Your task to perform on an android device: Go to Maps Image 0: 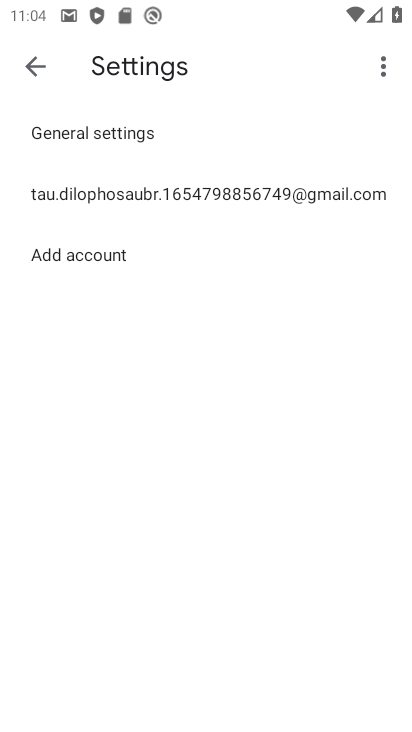
Step 0: press home button
Your task to perform on an android device: Go to Maps Image 1: 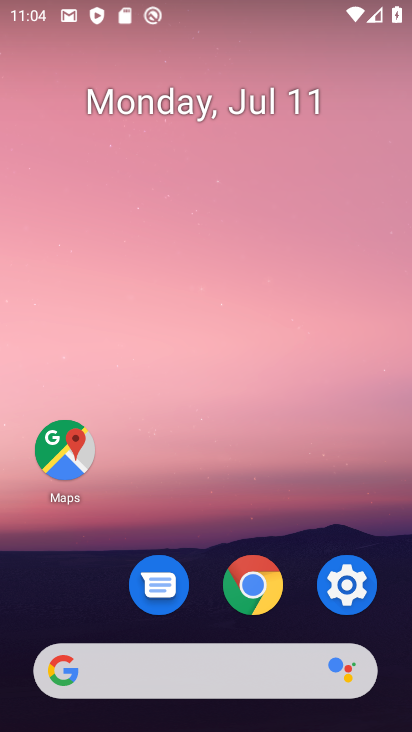
Step 1: click (80, 450)
Your task to perform on an android device: Go to Maps Image 2: 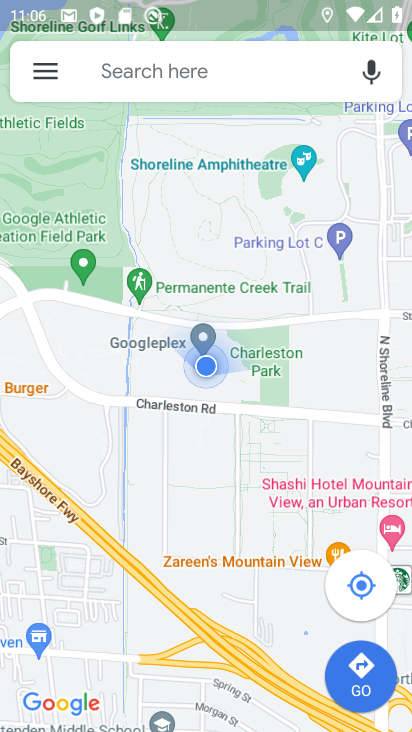
Step 2: task complete